Your task to perform on an android device: Open calendar and show me the fourth week of next month Image 0: 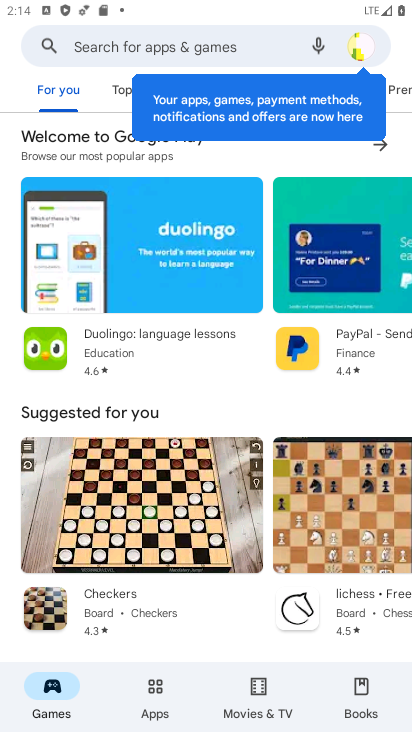
Step 0: press home button
Your task to perform on an android device: Open calendar and show me the fourth week of next month Image 1: 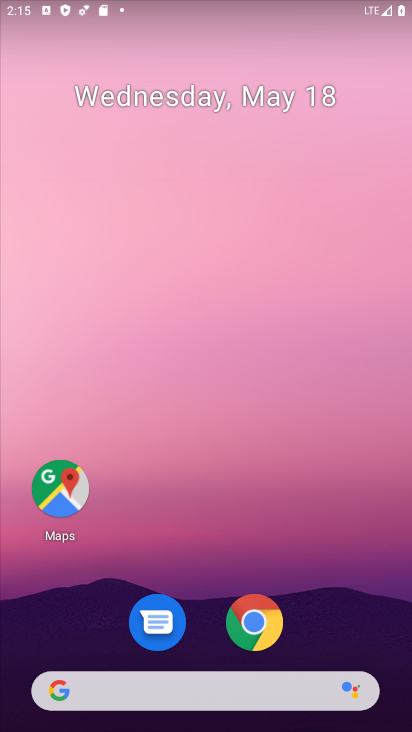
Step 1: drag from (181, 647) to (213, 245)
Your task to perform on an android device: Open calendar and show me the fourth week of next month Image 2: 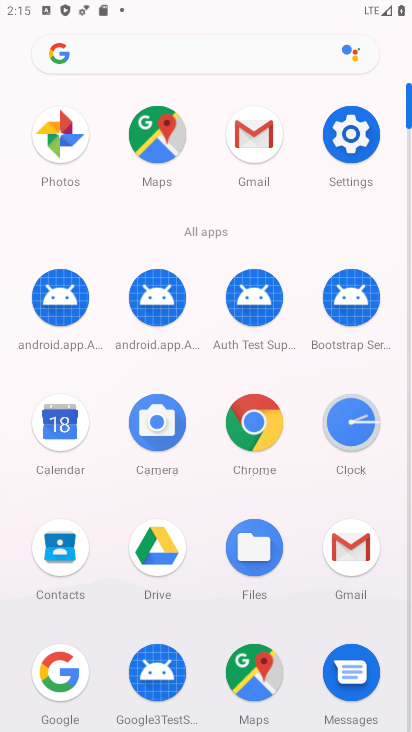
Step 2: click (70, 428)
Your task to perform on an android device: Open calendar and show me the fourth week of next month Image 3: 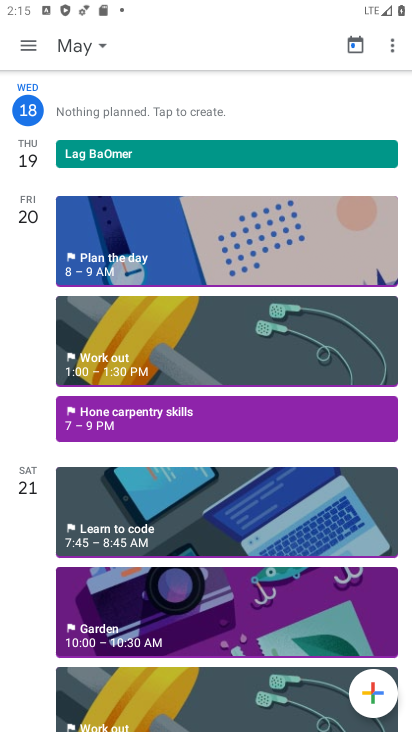
Step 3: click (104, 44)
Your task to perform on an android device: Open calendar and show me the fourth week of next month Image 4: 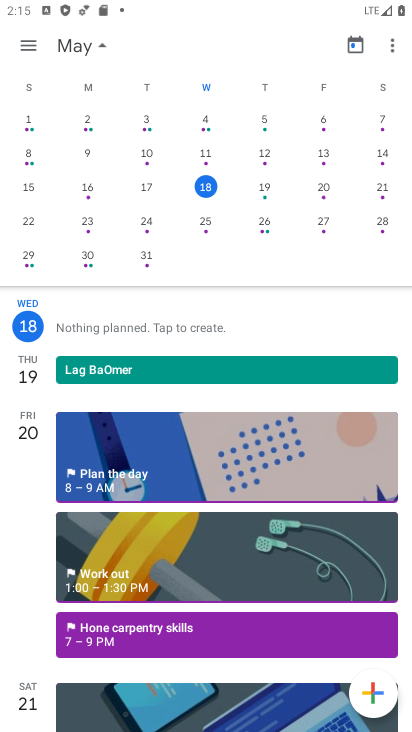
Step 4: drag from (337, 165) to (18, 179)
Your task to perform on an android device: Open calendar and show me the fourth week of next month Image 5: 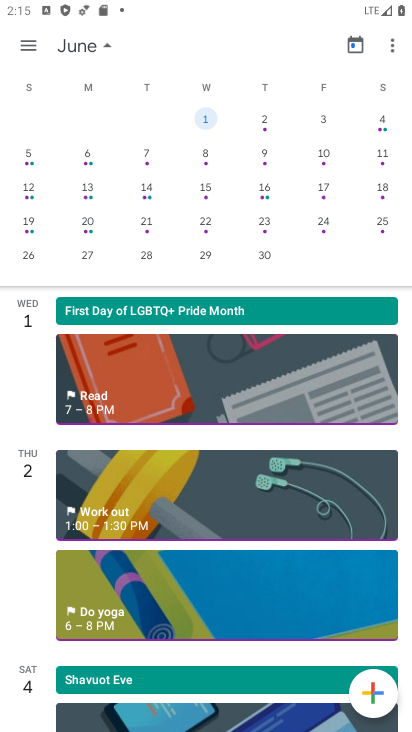
Step 5: click (31, 224)
Your task to perform on an android device: Open calendar and show me the fourth week of next month Image 6: 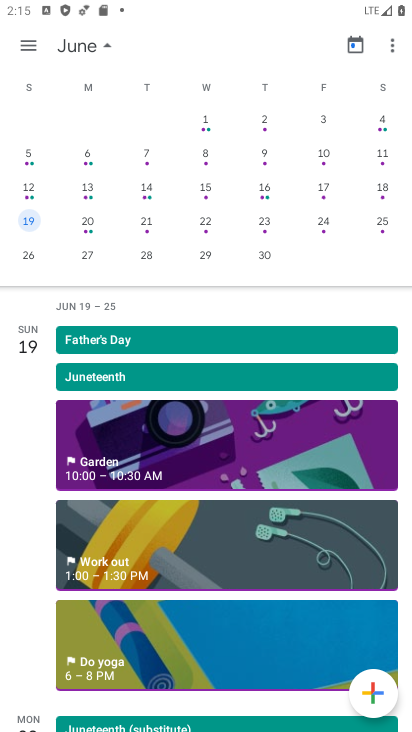
Step 6: task complete